Your task to perform on an android device: Open Google Image 0: 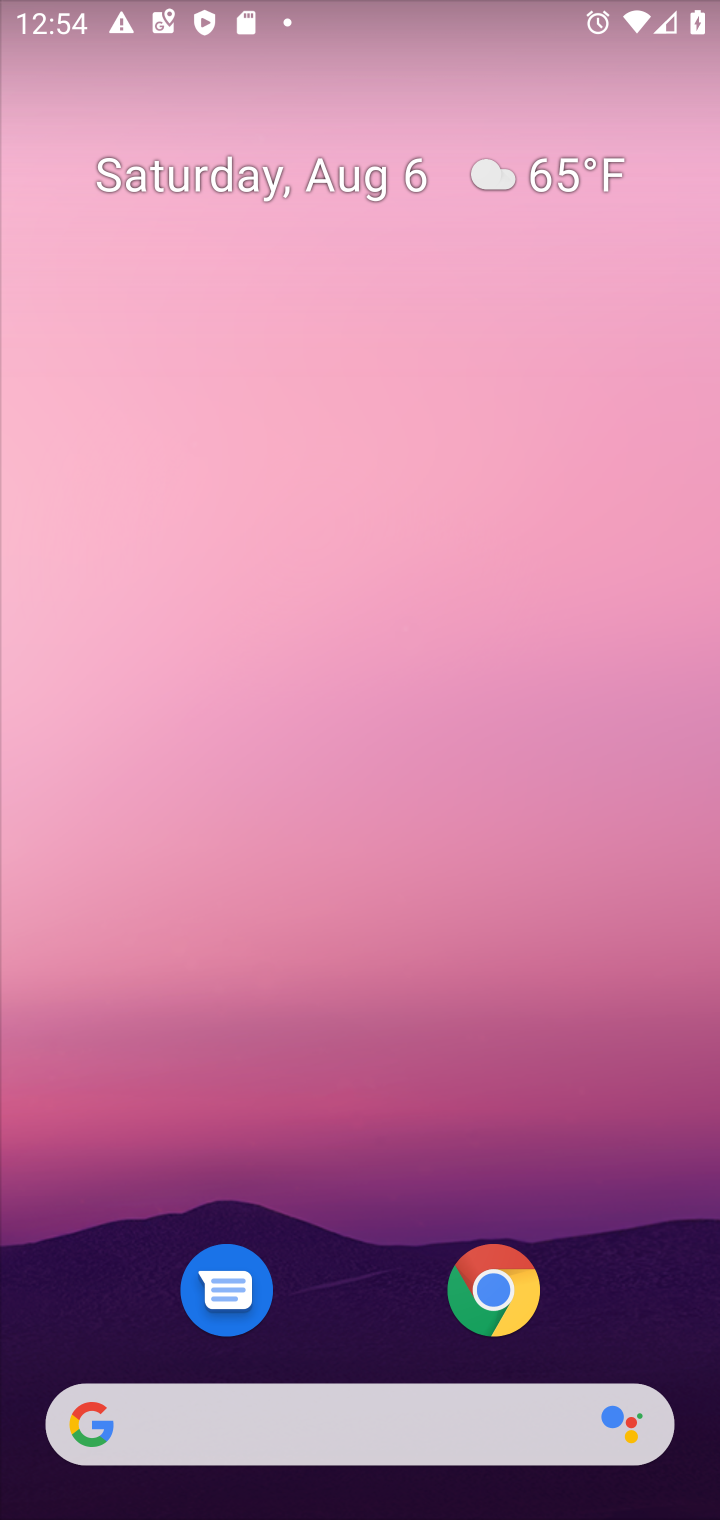
Step 0: press home button
Your task to perform on an android device: Open Google Image 1: 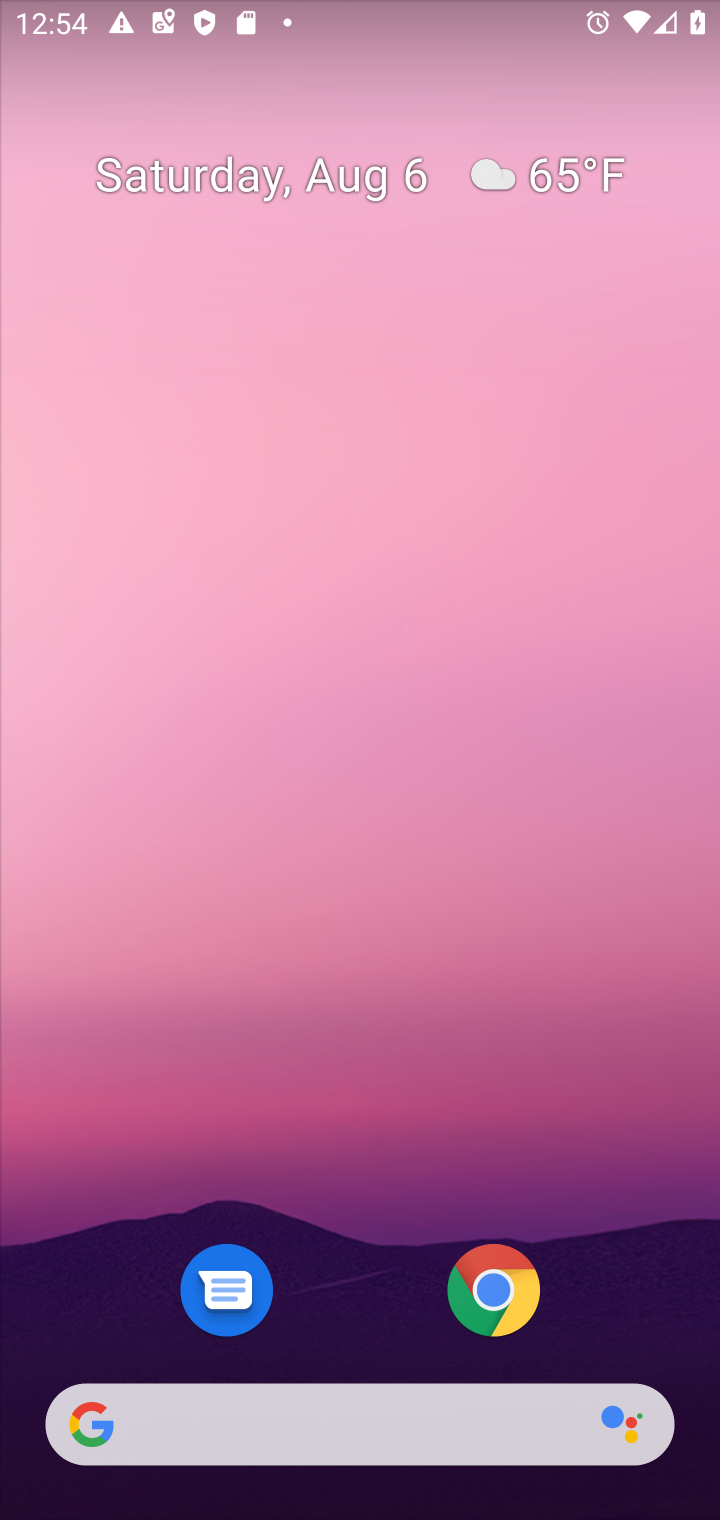
Step 1: drag from (363, 1299) to (375, 176)
Your task to perform on an android device: Open Google Image 2: 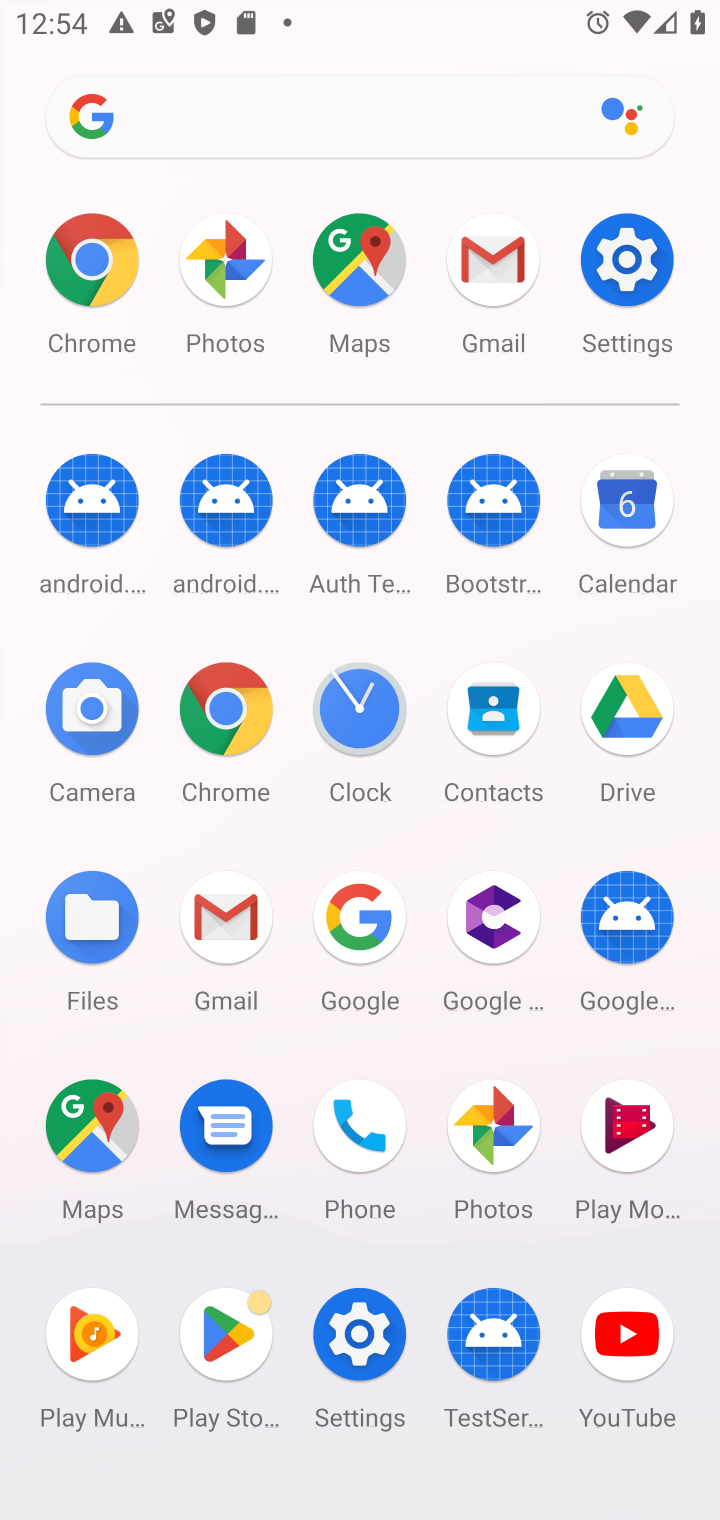
Step 2: click (350, 899)
Your task to perform on an android device: Open Google Image 3: 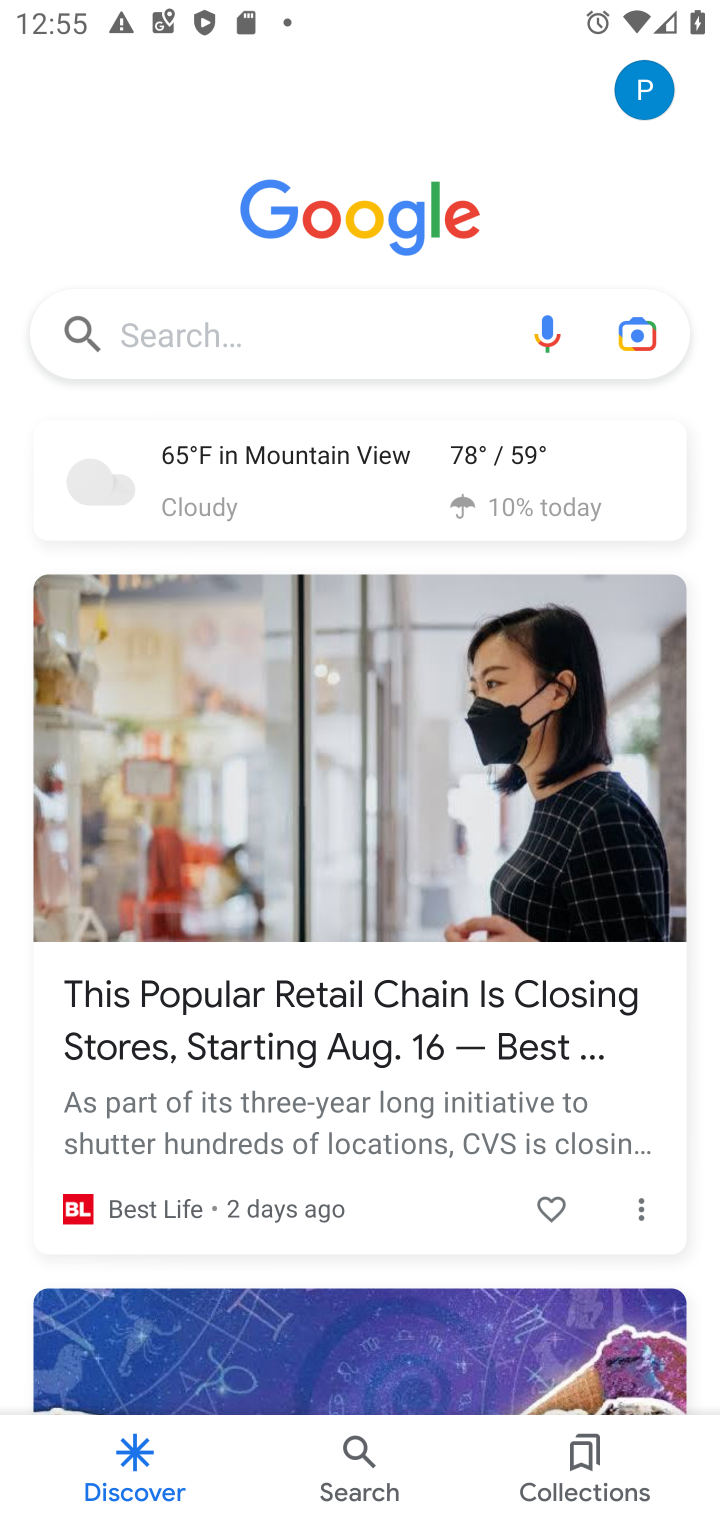
Step 3: task complete